Your task to perform on an android device: remove spam from my inbox in the gmail app Image 0: 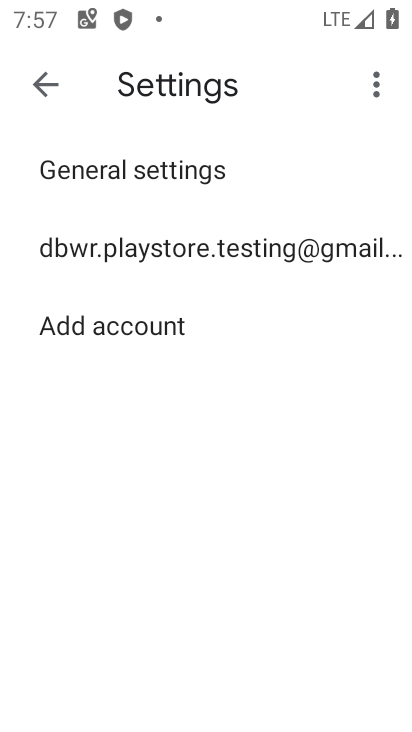
Step 0: press home button
Your task to perform on an android device: remove spam from my inbox in the gmail app Image 1: 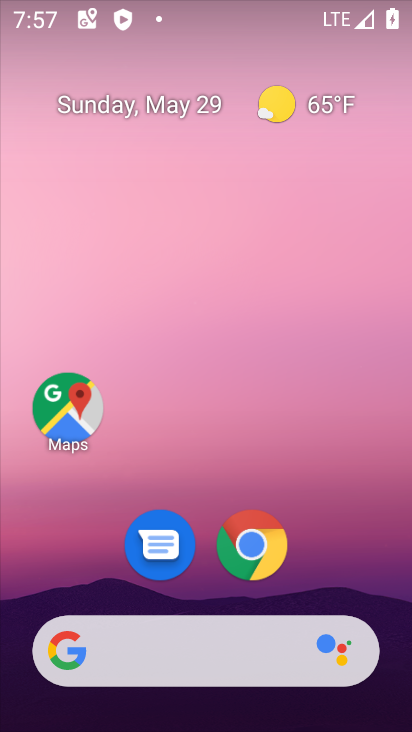
Step 1: drag from (206, 591) to (228, 255)
Your task to perform on an android device: remove spam from my inbox in the gmail app Image 2: 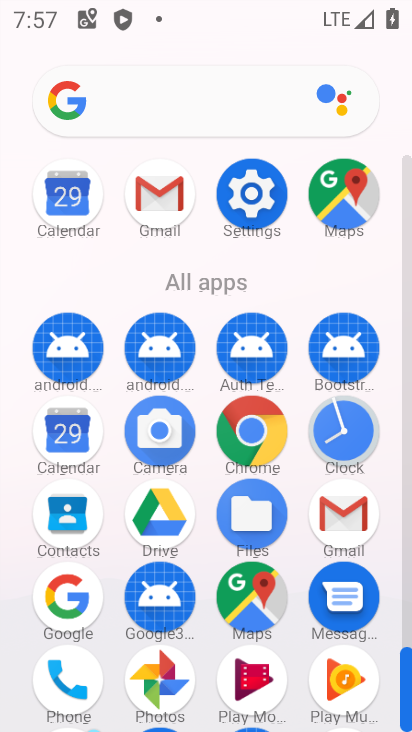
Step 2: click (169, 197)
Your task to perform on an android device: remove spam from my inbox in the gmail app Image 3: 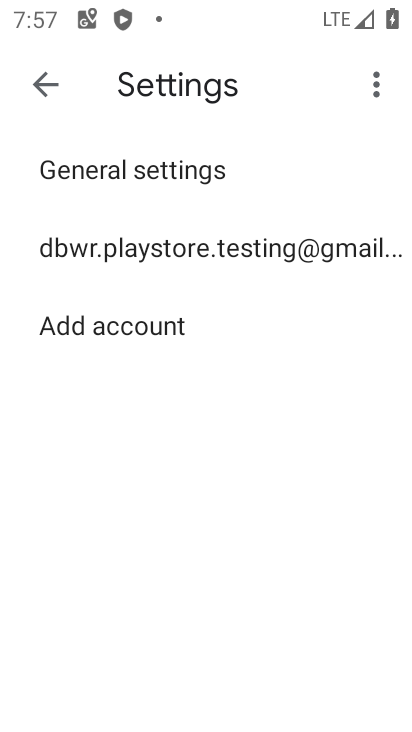
Step 3: click (190, 250)
Your task to perform on an android device: remove spam from my inbox in the gmail app Image 4: 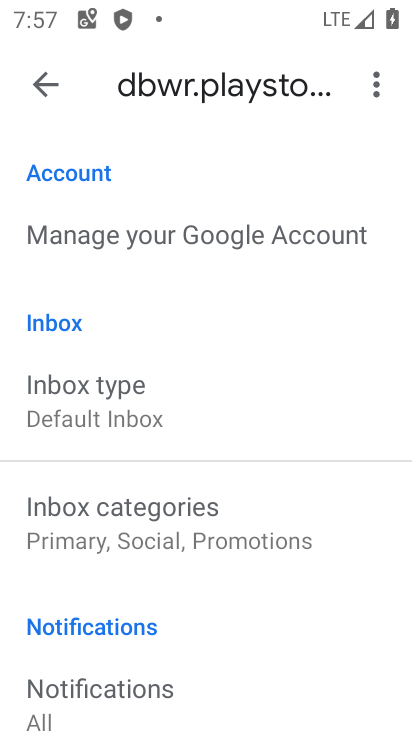
Step 4: drag from (127, 593) to (220, 275)
Your task to perform on an android device: remove spam from my inbox in the gmail app Image 5: 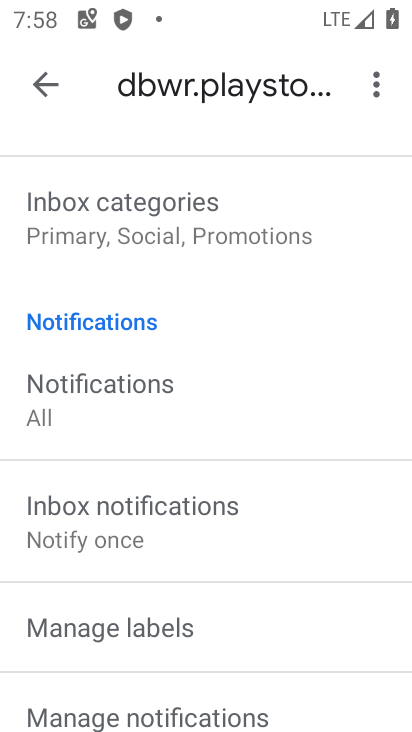
Step 5: drag from (119, 626) to (207, 593)
Your task to perform on an android device: remove spam from my inbox in the gmail app Image 6: 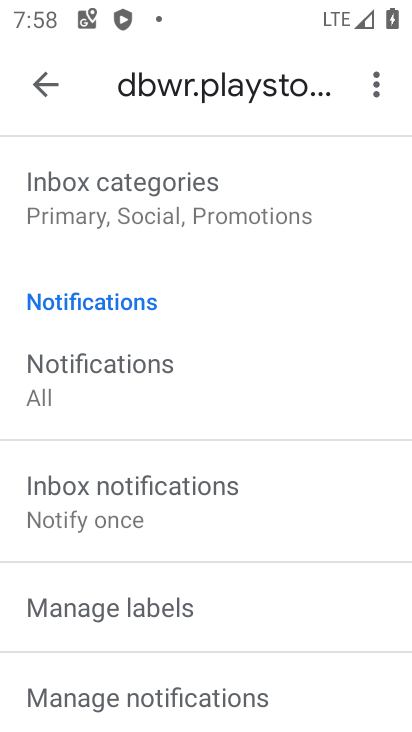
Step 6: click (38, 88)
Your task to perform on an android device: remove spam from my inbox in the gmail app Image 7: 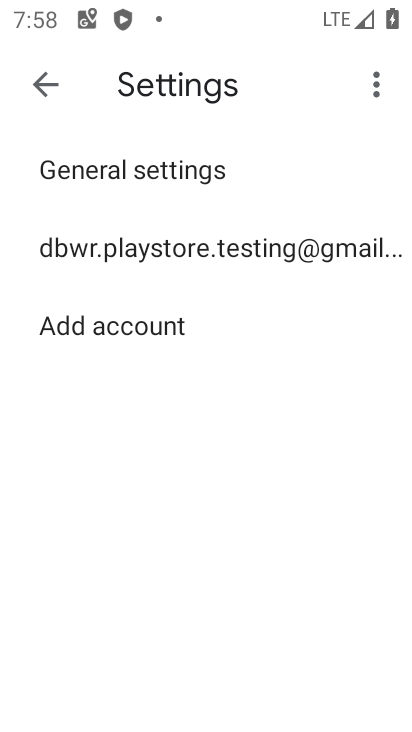
Step 7: click (38, 88)
Your task to perform on an android device: remove spam from my inbox in the gmail app Image 8: 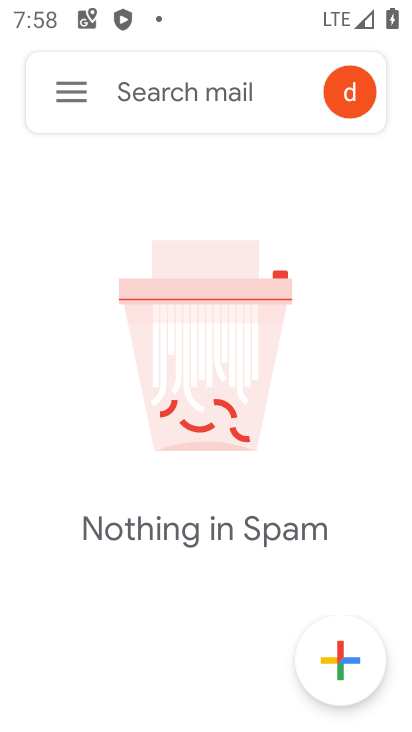
Step 8: click (79, 97)
Your task to perform on an android device: remove spam from my inbox in the gmail app Image 9: 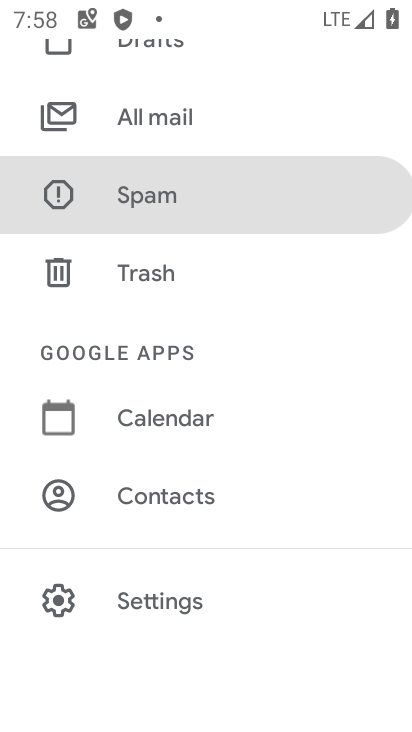
Step 9: drag from (182, 253) to (178, 608)
Your task to perform on an android device: remove spam from my inbox in the gmail app Image 10: 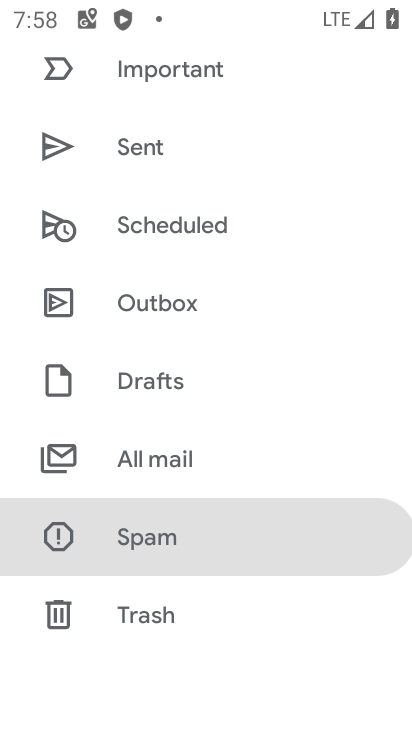
Step 10: drag from (198, 179) to (213, 637)
Your task to perform on an android device: remove spam from my inbox in the gmail app Image 11: 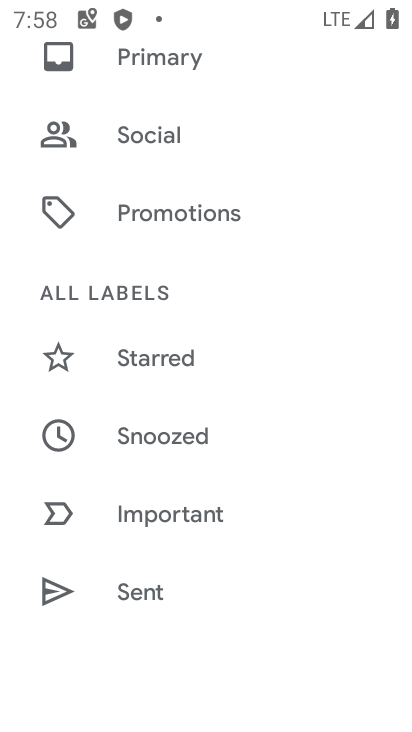
Step 11: drag from (206, 174) to (208, 245)
Your task to perform on an android device: remove spam from my inbox in the gmail app Image 12: 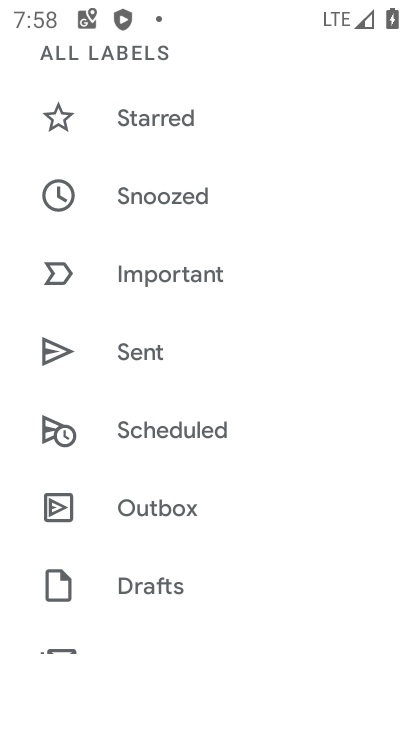
Step 12: drag from (169, 522) to (210, 201)
Your task to perform on an android device: remove spam from my inbox in the gmail app Image 13: 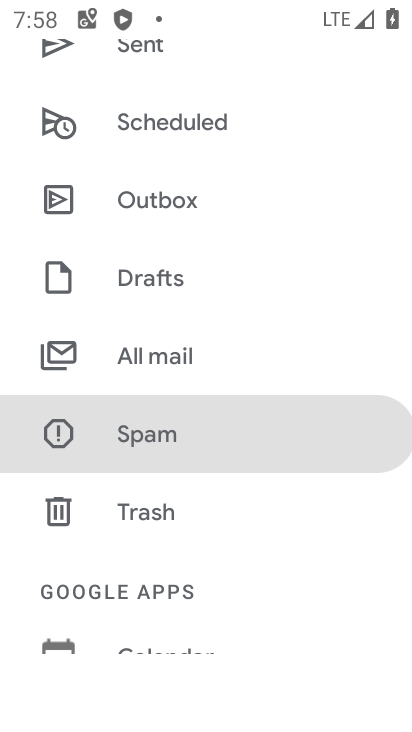
Step 13: click (165, 427)
Your task to perform on an android device: remove spam from my inbox in the gmail app Image 14: 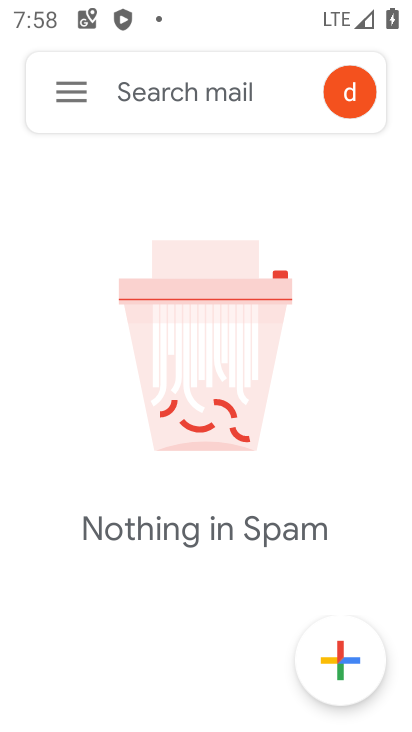
Step 14: task complete